Your task to perform on an android device: toggle notifications settings in the gmail app Image 0: 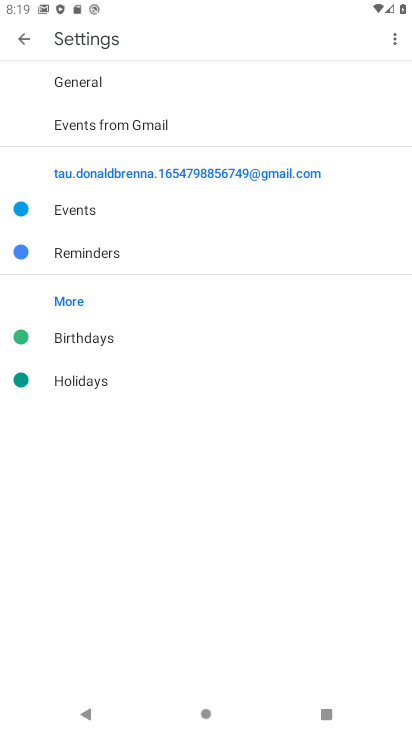
Step 0: press home button
Your task to perform on an android device: toggle notifications settings in the gmail app Image 1: 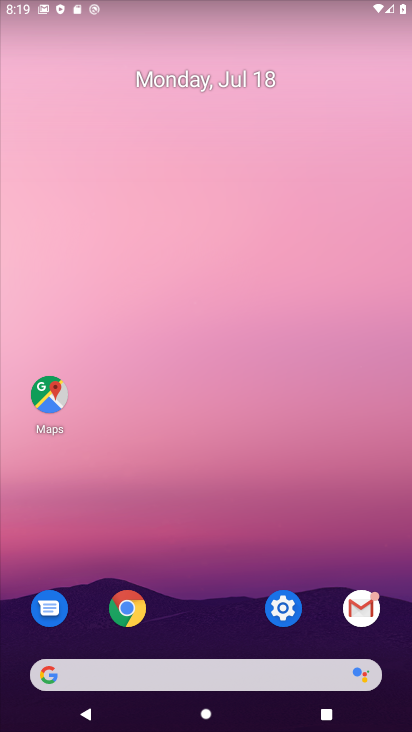
Step 1: click (347, 621)
Your task to perform on an android device: toggle notifications settings in the gmail app Image 2: 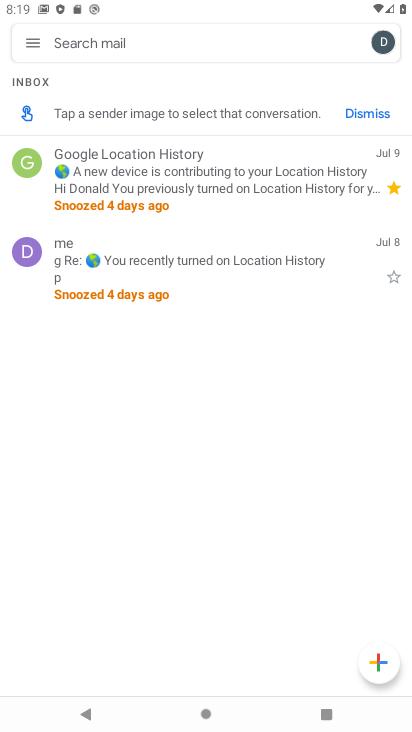
Step 2: click (32, 49)
Your task to perform on an android device: toggle notifications settings in the gmail app Image 3: 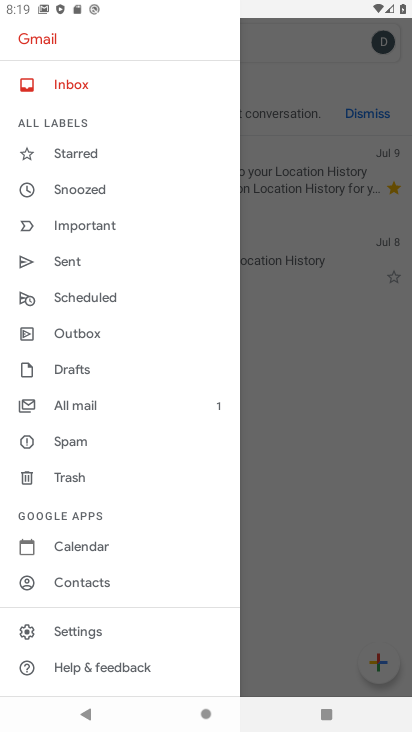
Step 3: click (81, 626)
Your task to perform on an android device: toggle notifications settings in the gmail app Image 4: 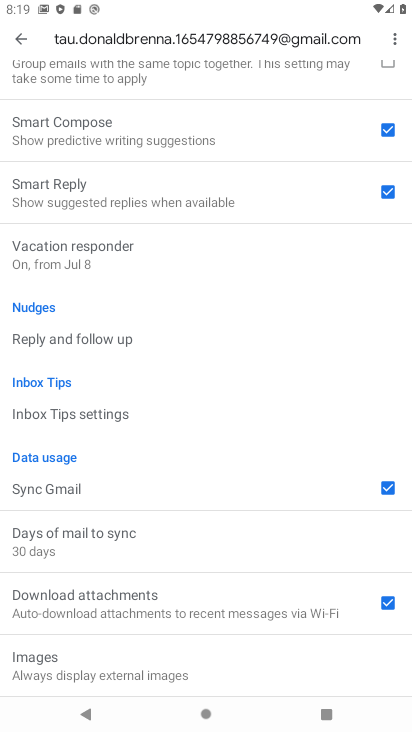
Step 4: drag from (109, 219) to (115, 715)
Your task to perform on an android device: toggle notifications settings in the gmail app Image 5: 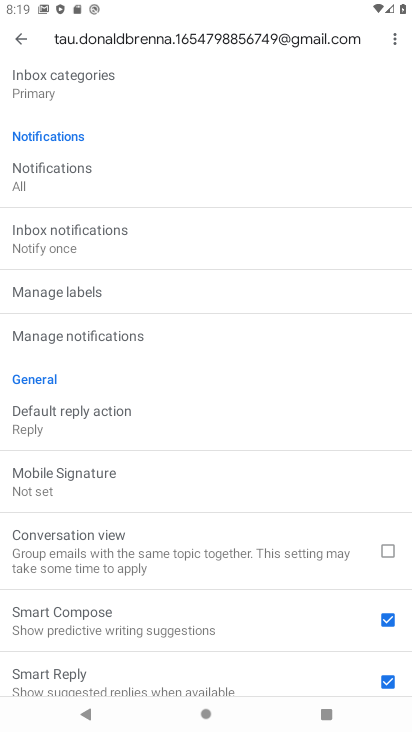
Step 5: click (104, 174)
Your task to perform on an android device: toggle notifications settings in the gmail app Image 6: 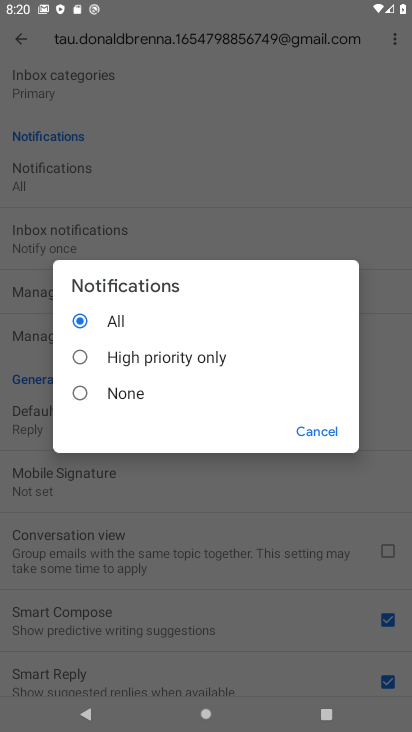
Step 6: task complete